Your task to perform on an android device: When is my next meeting? Image 0: 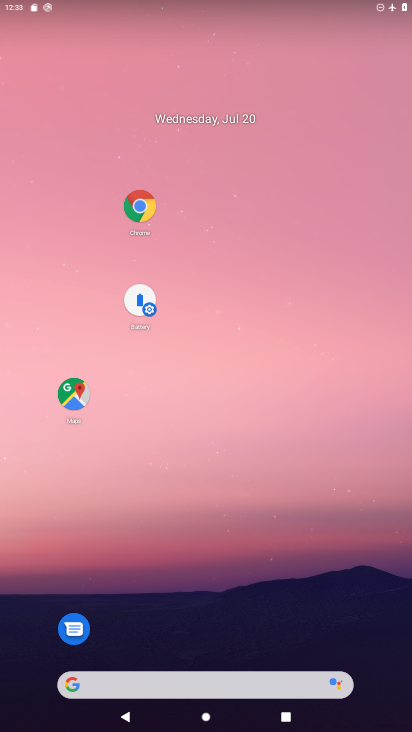
Step 0: drag from (177, 485) to (243, 106)
Your task to perform on an android device: When is my next meeting? Image 1: 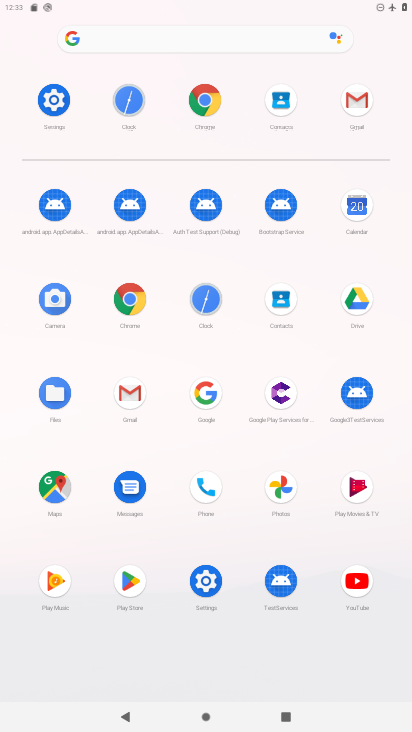
Step 1: click (357, 209)
Your task to perform on an android device: When is my next meeting? Image 2: 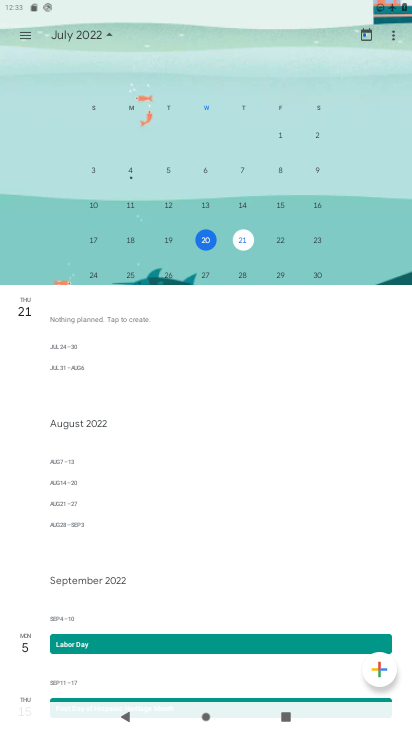
Step 2: drag from (235, 604) to (265, 276)
Your task to perform on an android device: When is my next meeting? Image 3: 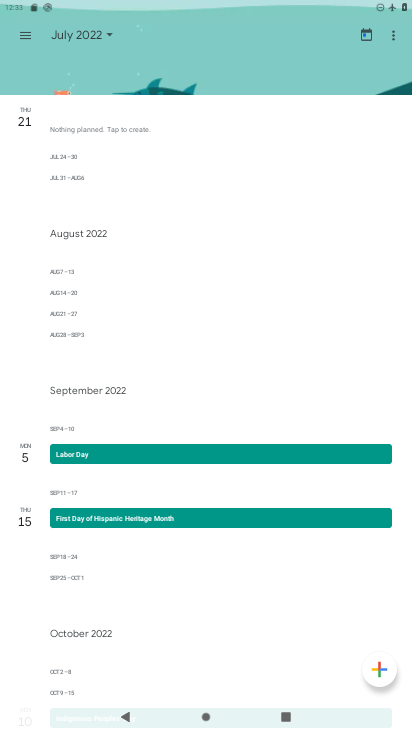
Step 3: drag from (279, 245) to (287, 710)
Your task to perform on an android device: When is my next meeting? Image 4: 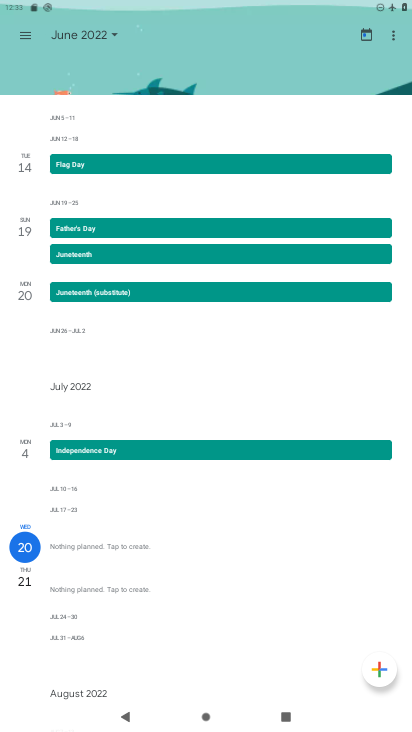
Step 4: click (370, 30)
Your task to perform on an android device: When is my next meeting? Image 5: 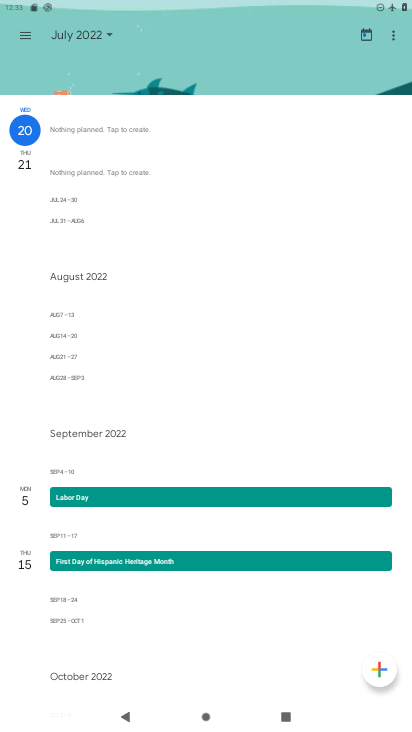
Step 5: task complete